Your task to perform on an android device: Open Google Image 0: 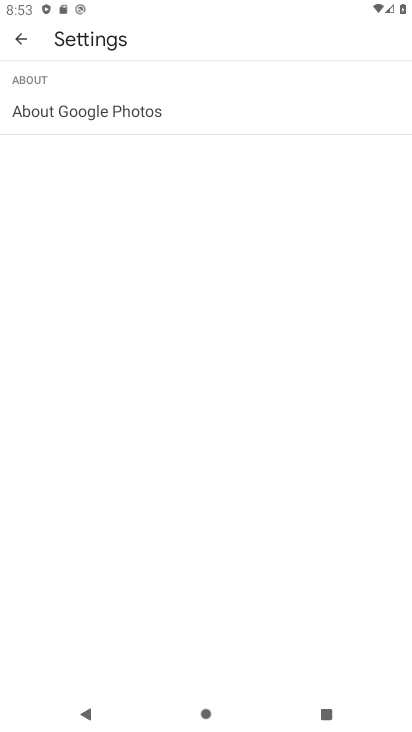
Step 0: press home button
Your task to perform on an android device: Open Google Image 1: 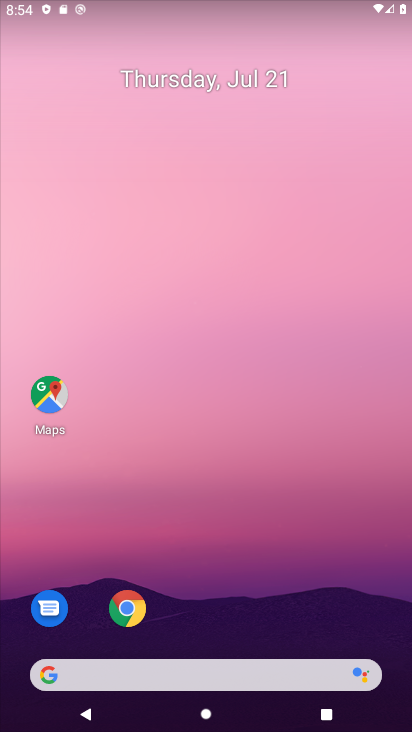
Step 1: drag from (204, 622) to (177, 27)
Your task to perform on an android device: Open Google Image 2: 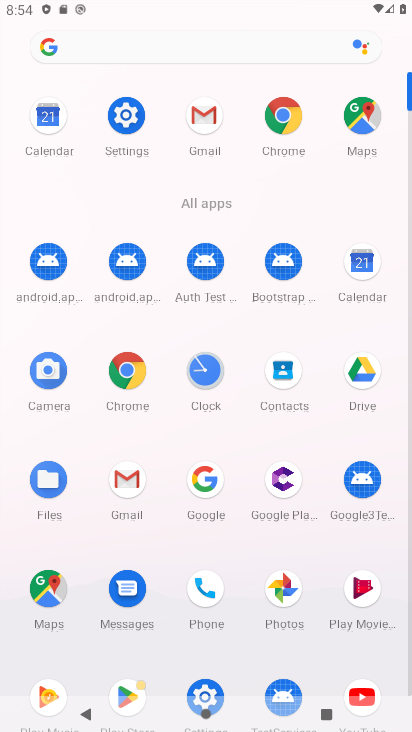
Step 2: click (207, 496)
Your task to perform on an android device: Open Google Image 3: 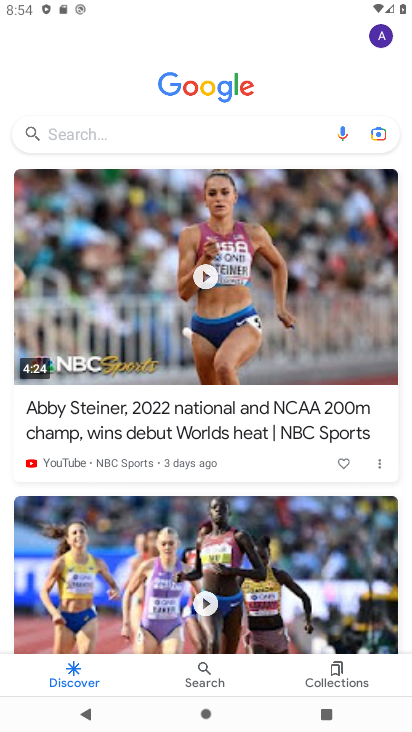
Step 3: task complete